Your task to perform on an android device: change the clock display to analog Image 0: 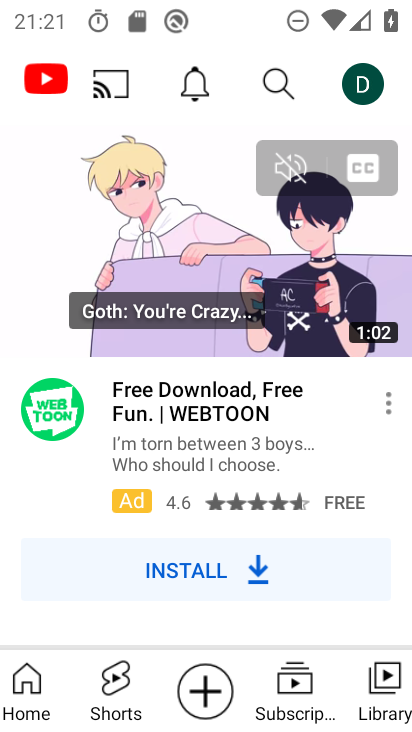
Step 0: press home button
Your task to perform on an android device: change the clock display to analog Image 1: 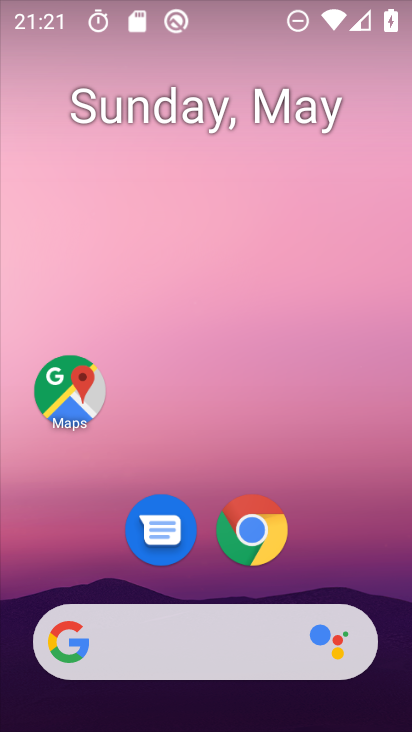
Step 1: drag from (229, 686) to (190, 223)
Your task to perform on an android device: change the clock display to analog Image 2: 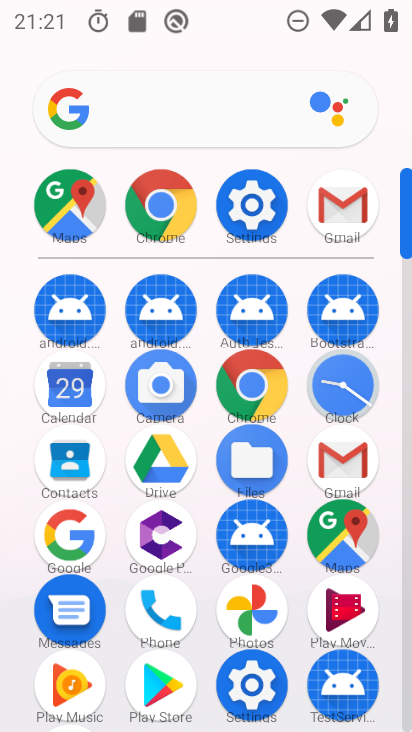
Step 2: click (345, 399)
Your task to perform on an android device: change the clock display to analog Image 3: 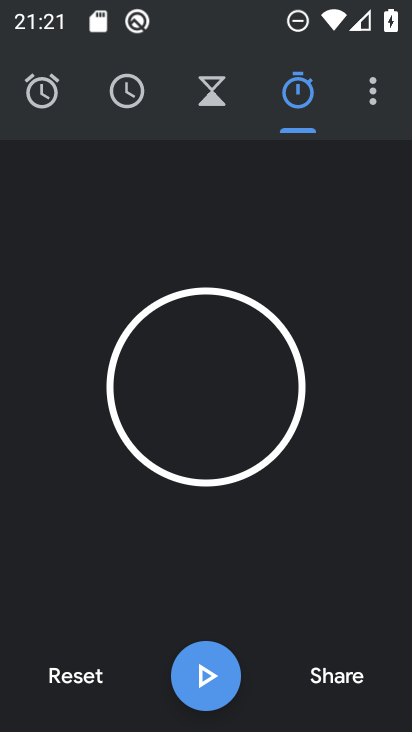
Step 3: click (367, 127)
Your task to perform on an android device: change the clock display to analog Image 4: 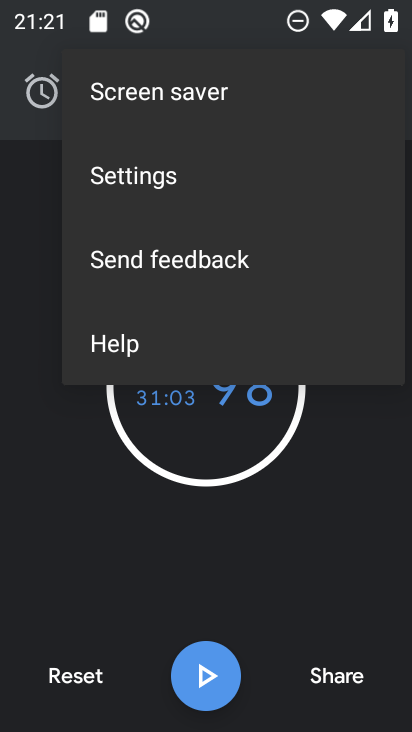
Step 4: click (144, 161)
Your task to perform on an android device: change the clock display to analog Image 5: 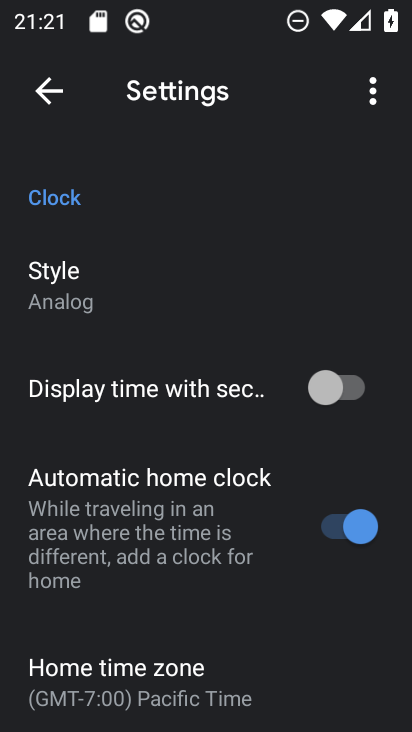
Step 5: click (56, 286)
Your task to perform on an android device: change the clock display to analog Image 6: 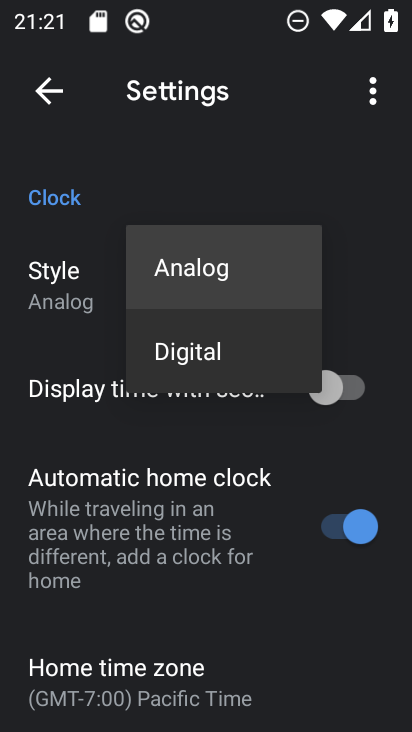
Step 6: click (179, 288)
Your task to perform on an android device: change the clock display to analog Image 7: 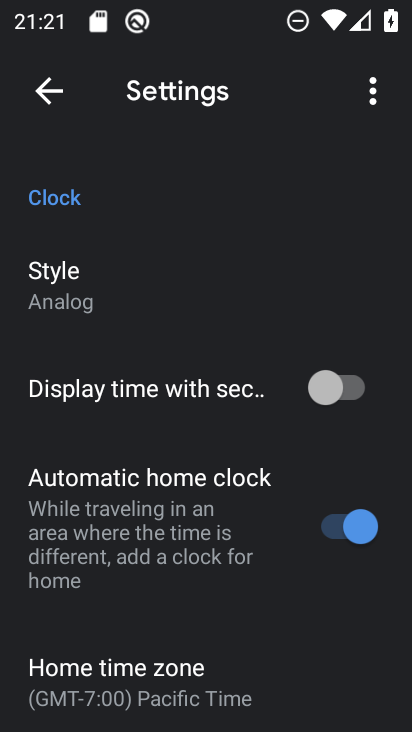
Step 7: task complete